Your task to perform on an android device: turn on data saver in the chrome app Image 0: 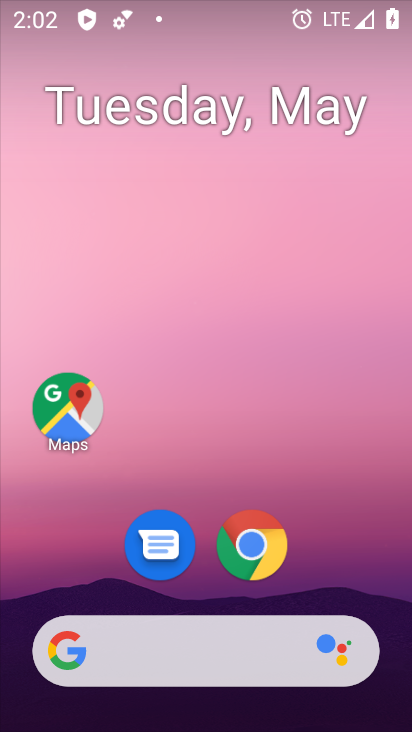
Step 0: drag from (297, 391) to (308, 432)
Your task to perform on an android device: turn on data saver in the chrome app Image 1: 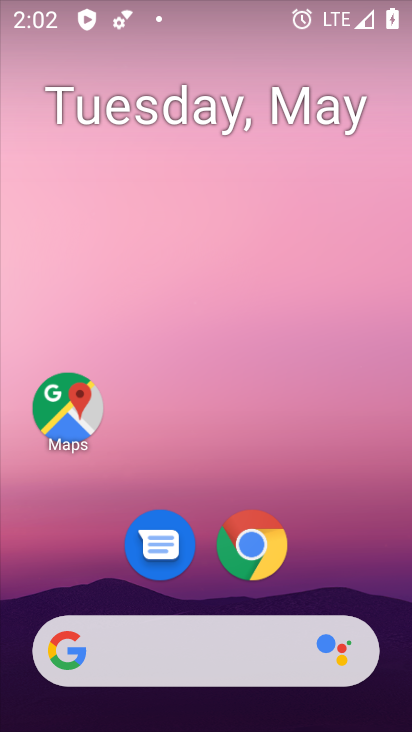
Step 1: drag from (331, 509) to (215, 12)
Your task to perform on an android device: turn on data saver in the chrome app Image 2: 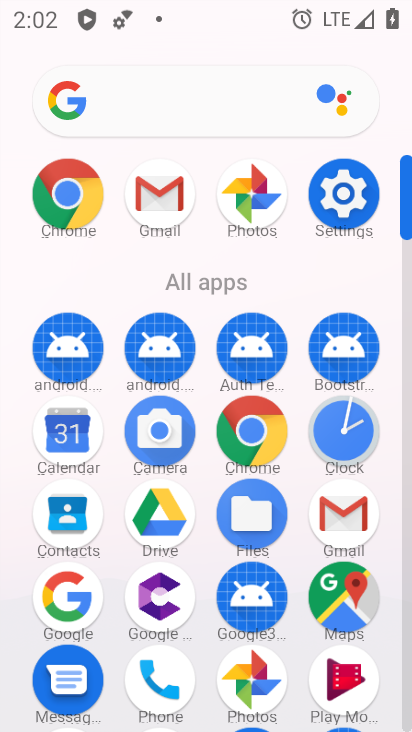
Step 2: drag from (18, 592) to (14, 252)
Your task to perform on an android device: turn on data saver in the chrome app Image 3: 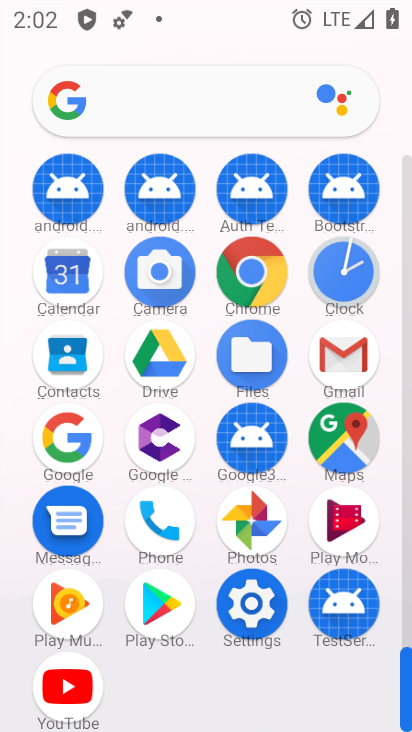
Step 3: click (247, 264)
Your task to perform on an android device: turn on data saver in the chrome app Image 4: 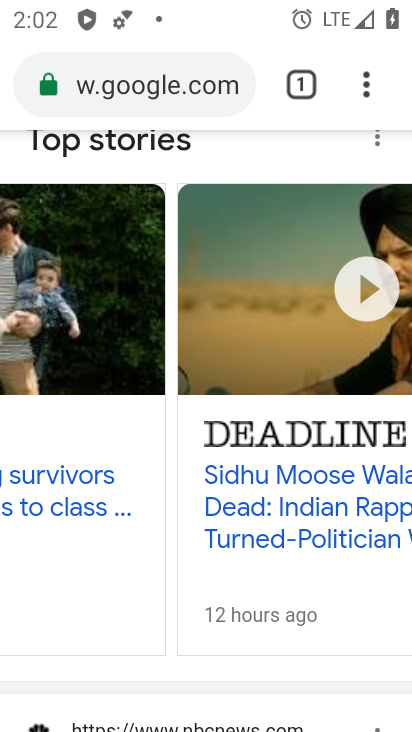
Step 4: drag from (370, 77) to (108, 596)
Your task to perform on an android device: turn on data saver in the chrome app Image 5: 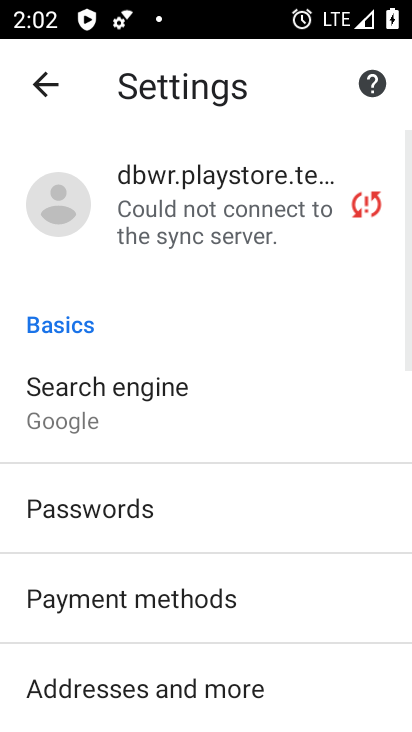
Step 5: drag from (254, 615) to (248, 187)
Your task to perform on an android device: turn on data saver in the chrome app Image 6: 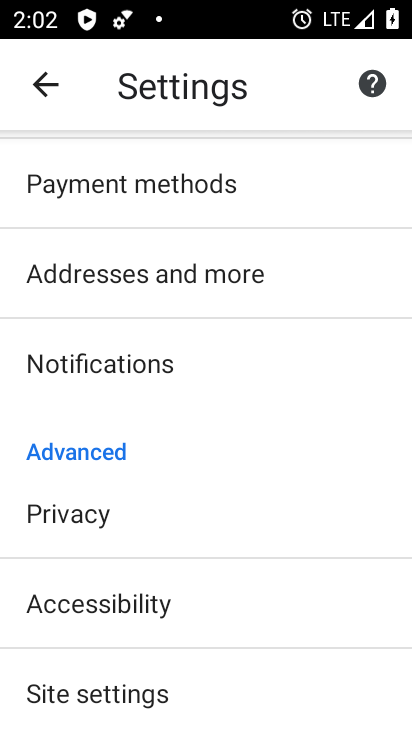
Step 6: drag from (225, 616) to (238, 177)
Your task to perform on an android device: turn on data saver in the chrome app Image 7: 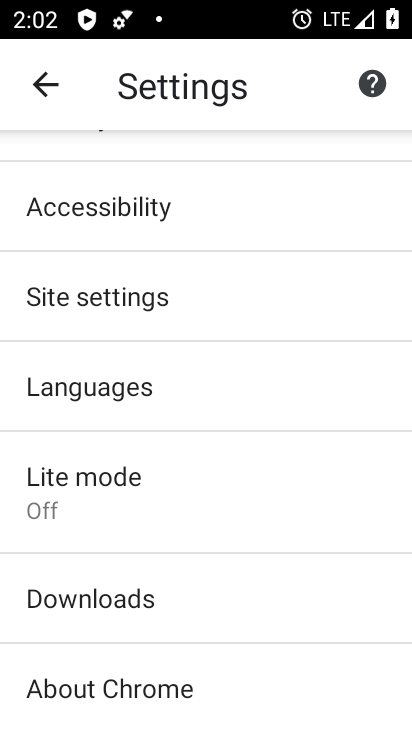
Step 7: click (122, 500)
Your task to perform on an android device: turn on data saver in the chrome app Image 8: 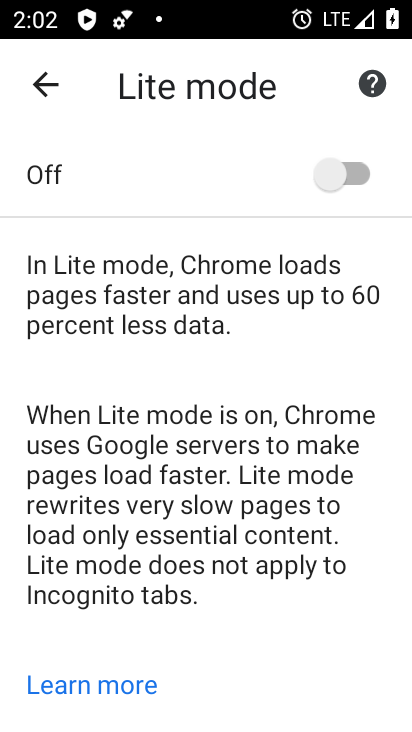
Step 8: click (331, 173)
Your task to perform on an android device: turn on data saver in the chrome app Image 9: 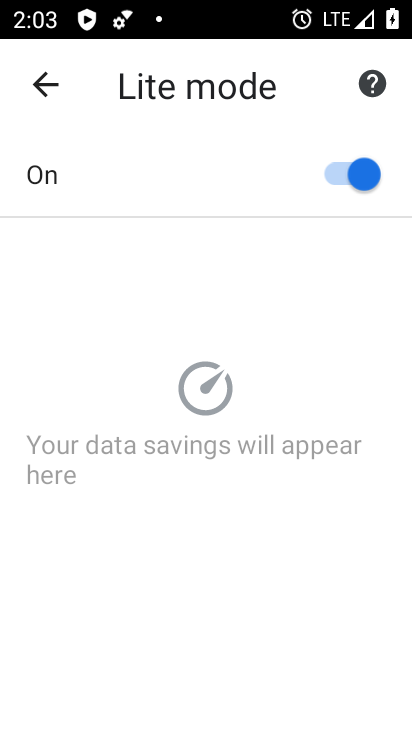
Step 9: task complete